Your task to perform on an android device: What is the recent news? Image 0: 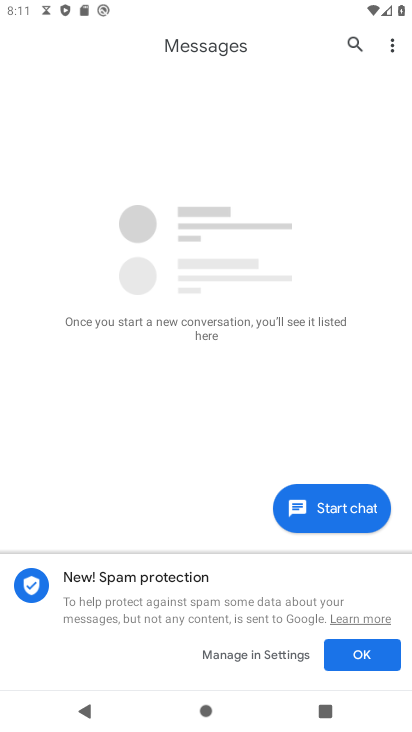
Step 0: press home button
Your task to perform on an android device: What is the recent news? Image 1: 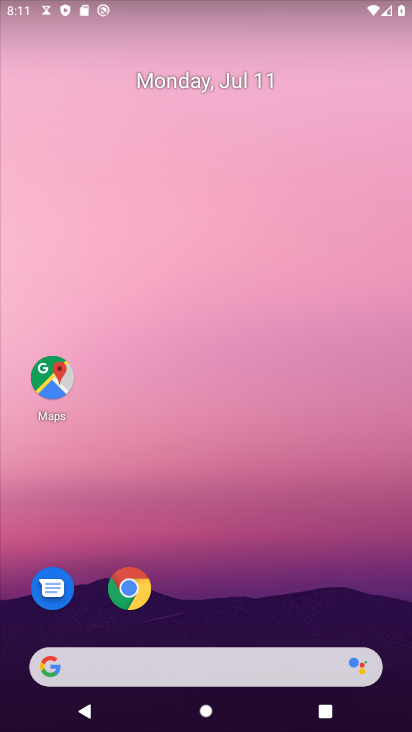
Step 1: click (185, 665)
Your task to perform on an android device: What is the recent news? Image 2: 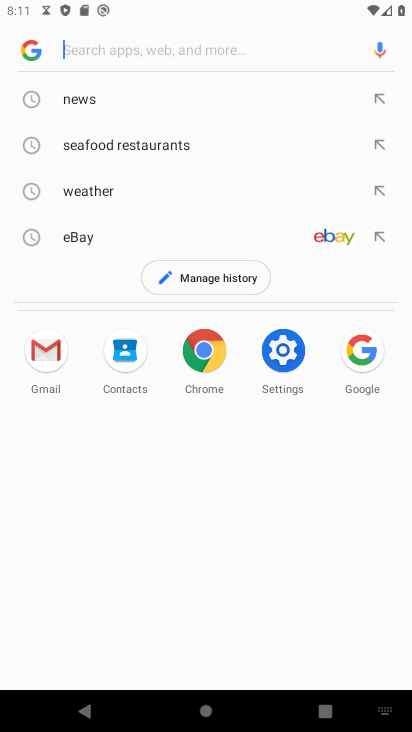
Step 2: type "recent news?"
Your task to perform on an android device: What is the recent news? Image 3: 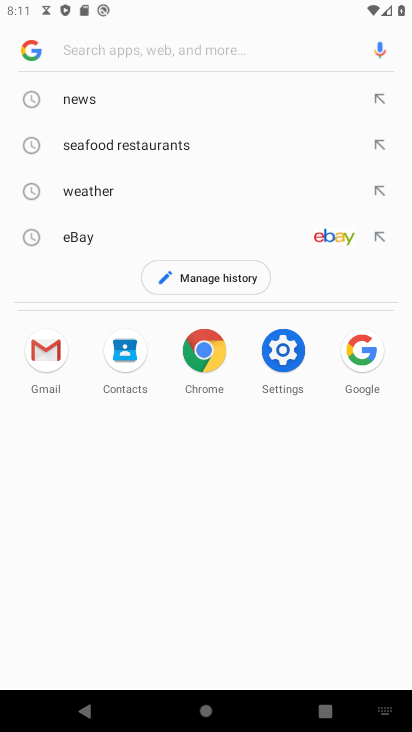
Step 3: click (93, 50)
Your task to perform on an android device: What is the recent news? Image 4: 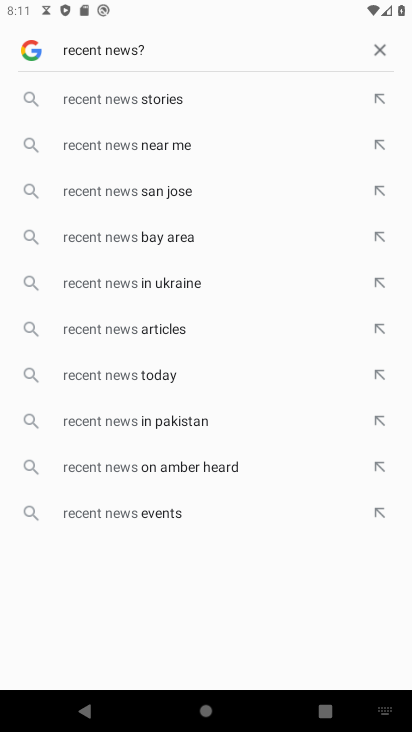
Step 4: press enter
Your task to perform on an android device: What is the recent news? Image 5: 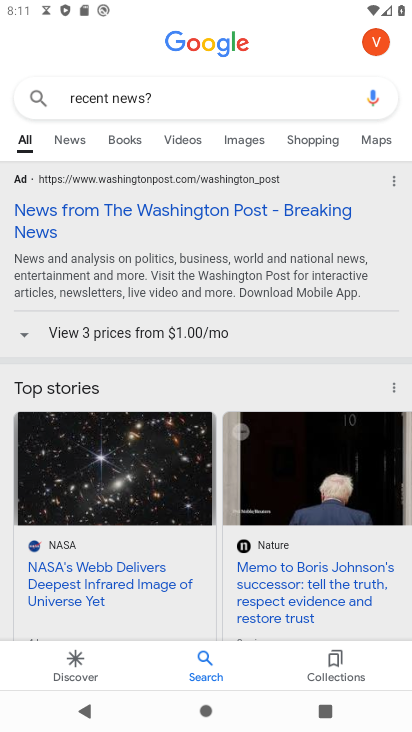
Step 5: task complete